Your task to perform on an android device: Turn on the flashlight Image 0: 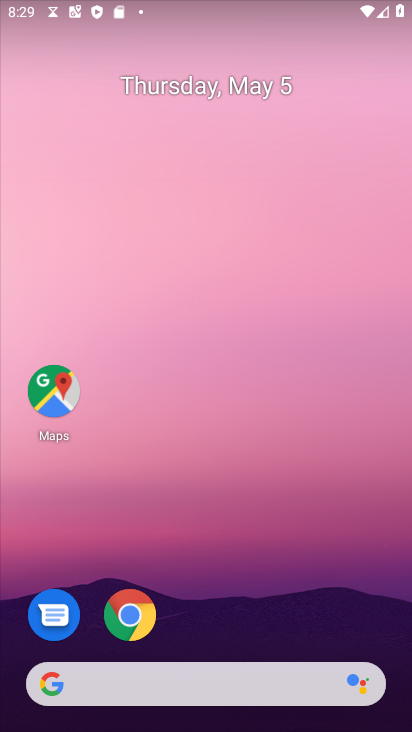
Step 0: click (269, 364)
Your task to perform on an android device: Turn on the flashlight Image 1: 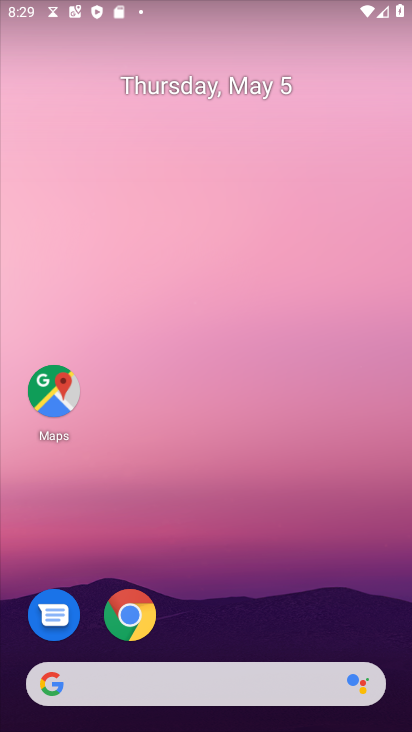
Step 1: drag from (215, 635) to (220, 213)
Your task to perform on an android device: Turn on the flashlight Image 2: 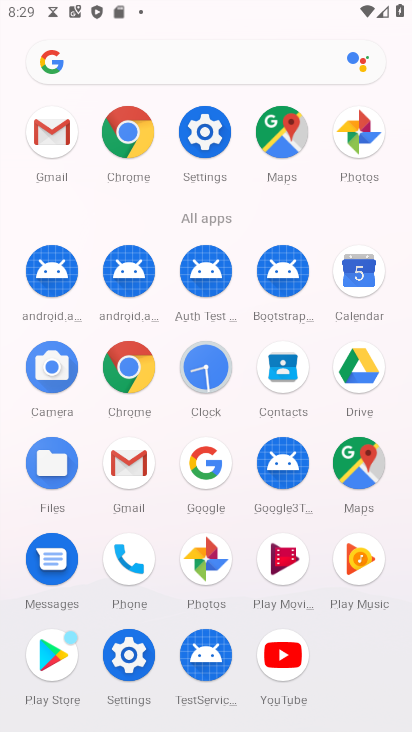
Step 2: click (212, 142)
Your task to perform on an android device: Turn on the flashlight Image 3: 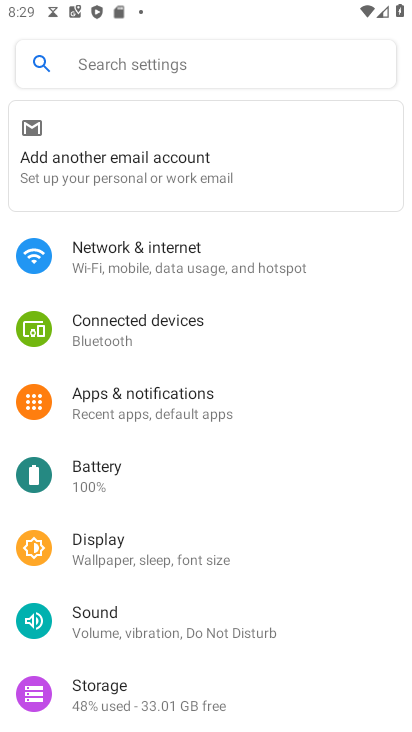
Step 3: click (203, 63)
Your task to perform on an android device: Turn on the flashlight Image 4: 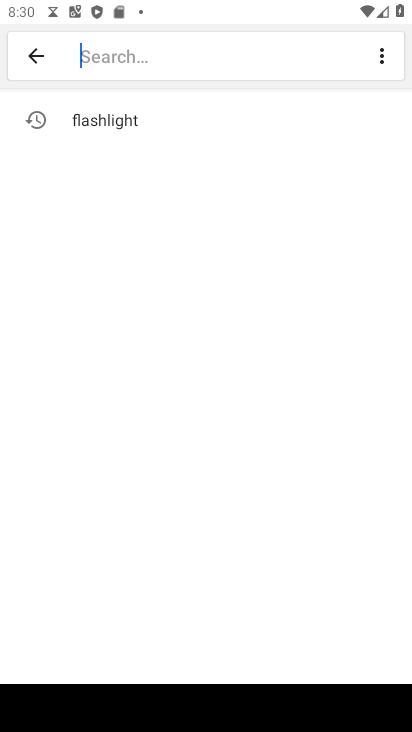
Step 4: type "flashlight"
Your task to perform on an android device: Turn on the flashlight Image 5: 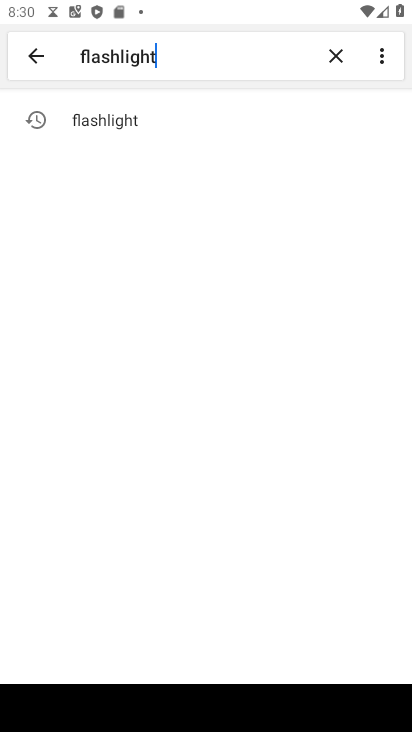
Step 5: click (125, 120)
Your task to perform on an android device: Turn on the flashlight Image 6: 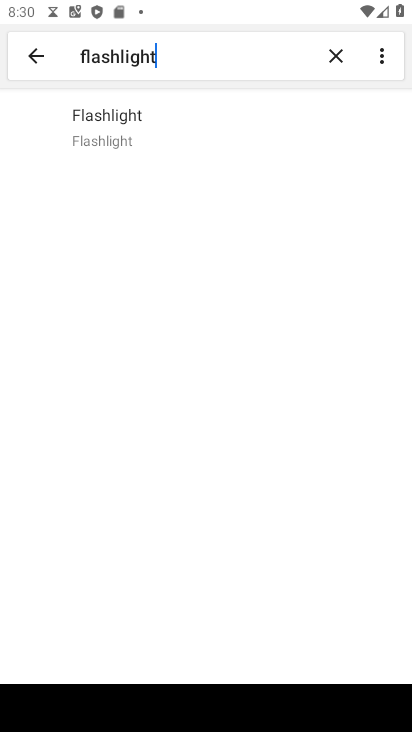
Step 6: click (120, 129)
Your task to perform on an android device: Turn on the flashlight Image 7: 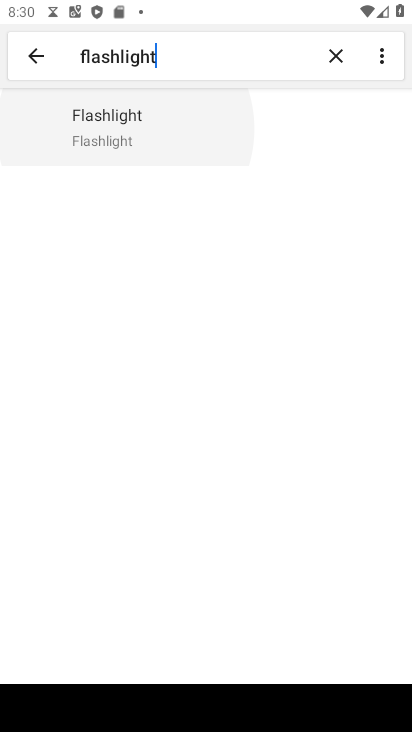
Step 7: click (120, 129)
Your task to perform on an android device: Turn on the flashlight Image 8: 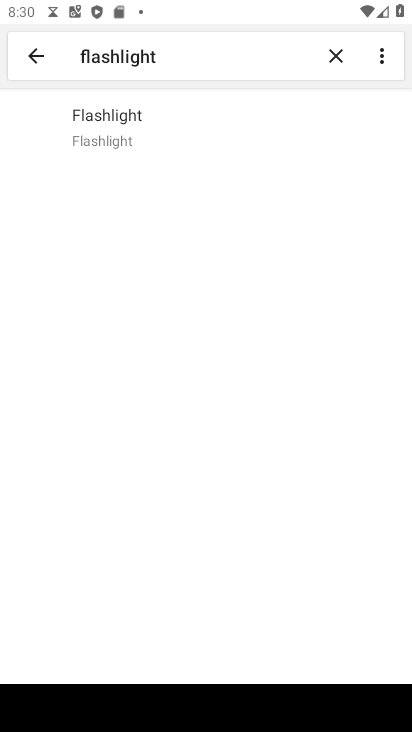
Step 8: task complete